Your task to perform on an android device: Check the news Image 0: 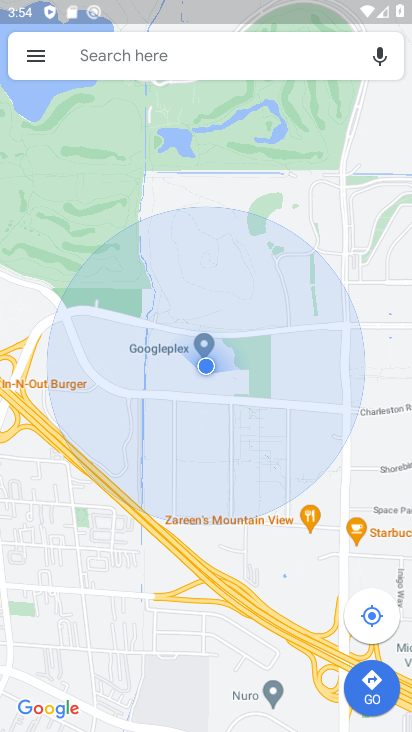
Step 0: press home button
Your task to perform on an android device: Check the news Image 1: 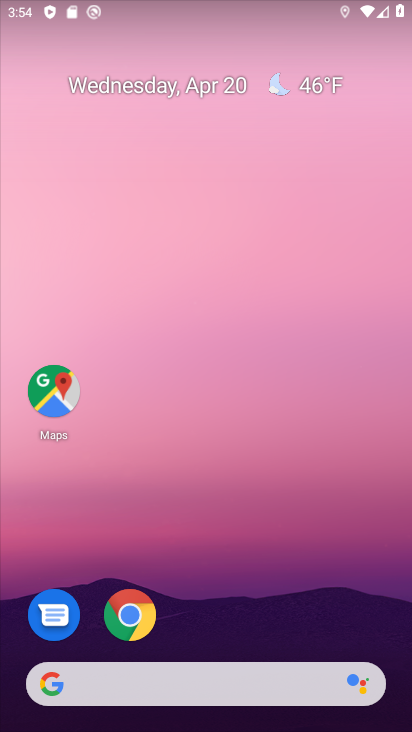
Step 1: drag from (260, 547) to (362, 90)
Your task to perform on an android device: Check the news Image 2: 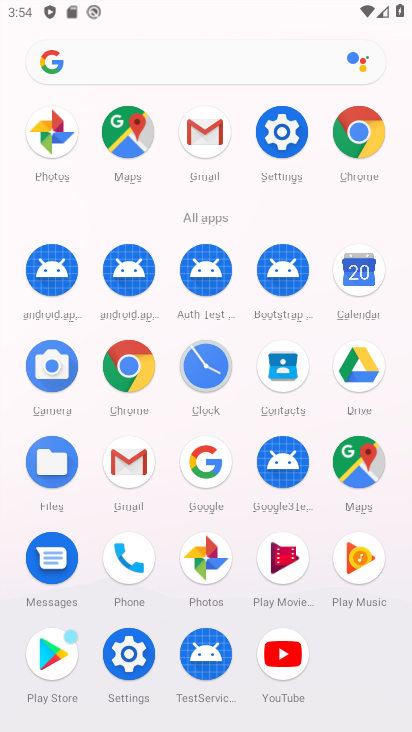
Step 2: click (123, 365)
Your task to perform on an android device: Check the news Image 3: 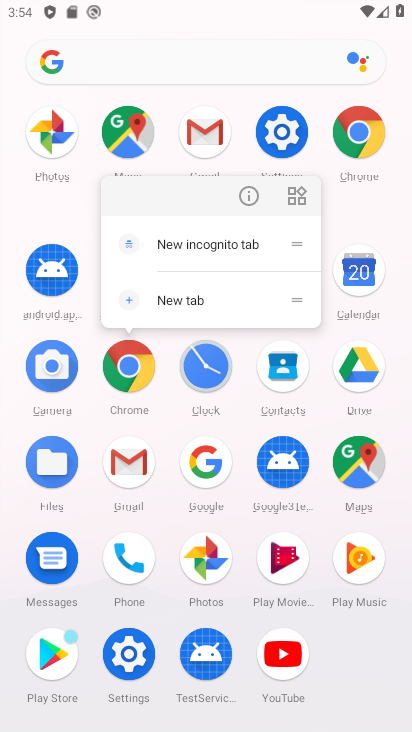
Step 3: click (360, 149)
Your task to perform on an android device: Check the news Image 4: 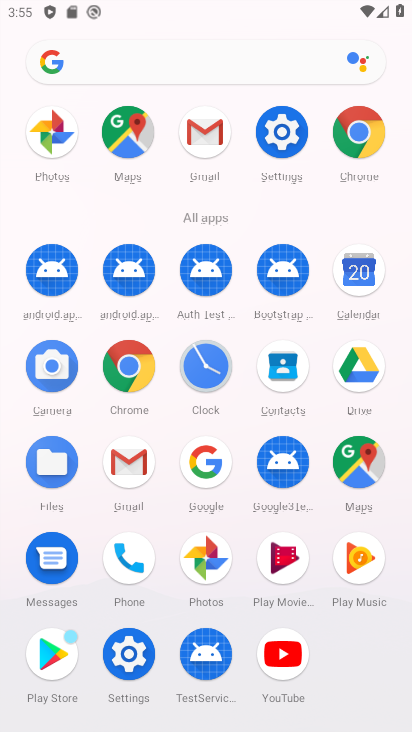
Step 4: click (360, 149)
Your task to perform on an android device: Check the news Image 5: 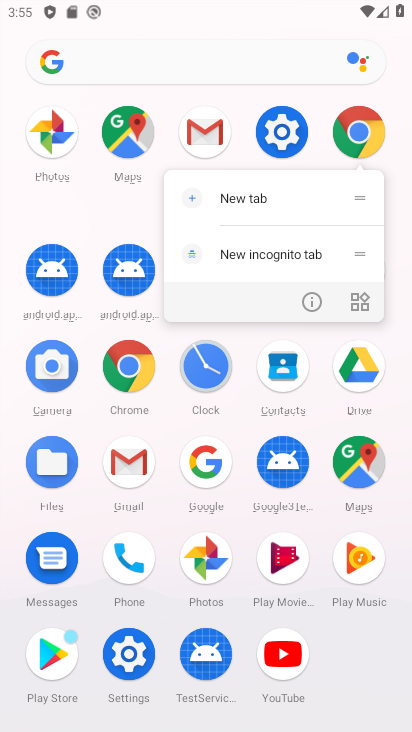
Step 5: click (365, 126)
Your task to perform on an android device: Check the news Image 6: 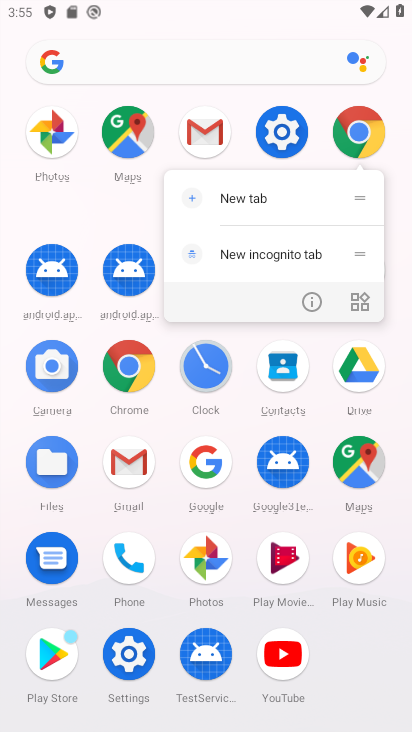
Step 6: click (365, 126)
Your task to perform on an android device: Check the news Image 7: 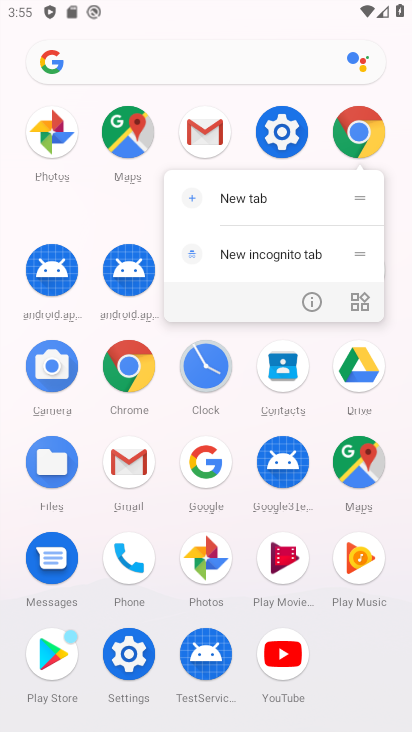
Step 7: click (365, 126)
Your task to perform on an android device: Check the news Image 8: 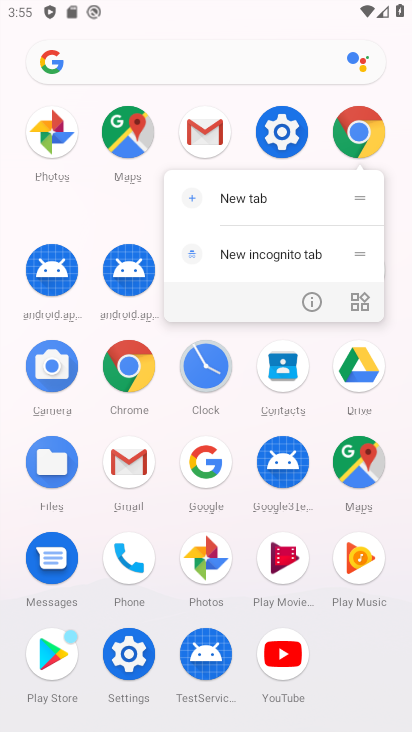
Step 8: click (365, 126)
Your task to perform on an android device: Check the news Image 9: 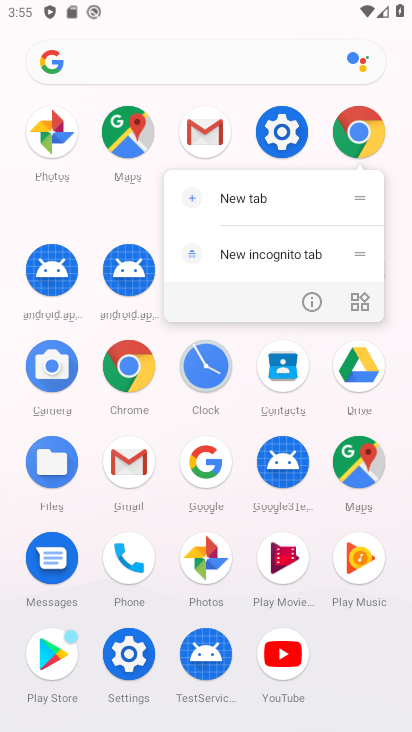
Step 9: click (365, 126)
Your task to perform on an android device: Check the news Image 10: 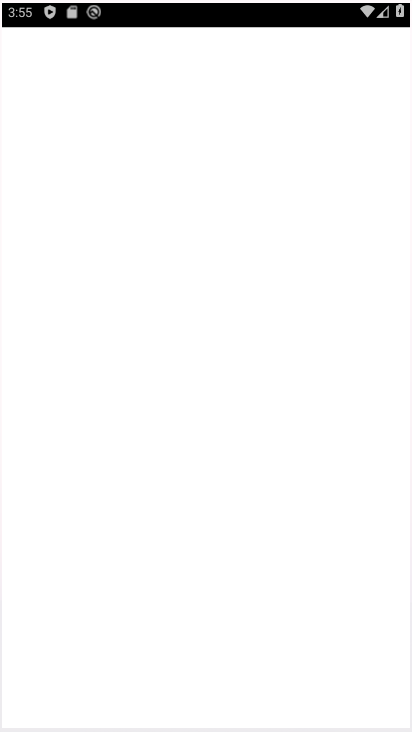
Step 10: click (365, 125)
Your task to perform on an android device: Check the news Image 11: 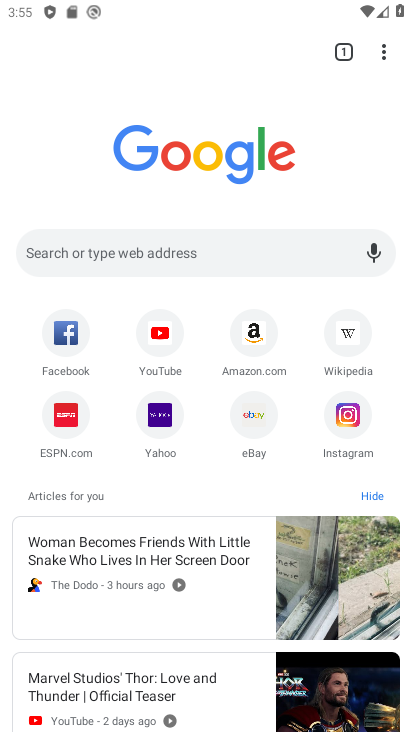
Step 11: task complete